Your task to perform on an android device: toggle notification dots Image 0: 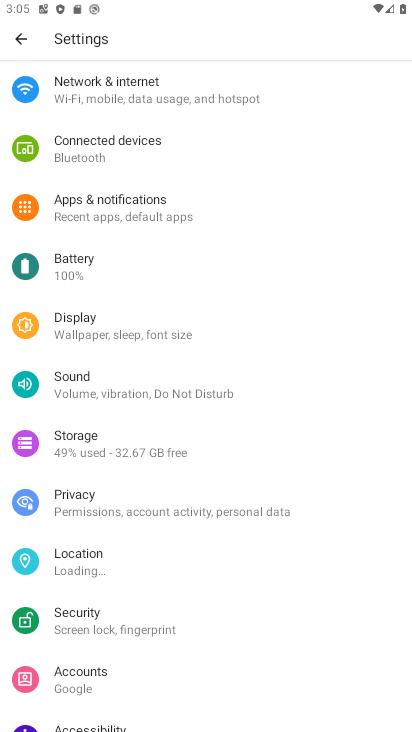
Step 0: click (133, 201)
Your task to perform on an android device: toggle notification dots Image 1: 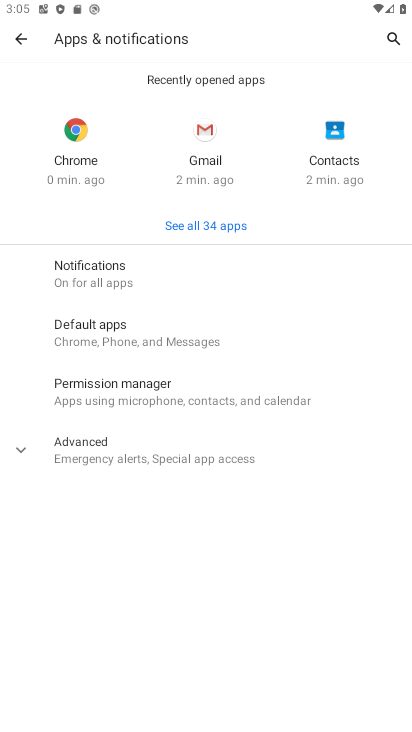
Step 1: click (107, 454)
Your task to perform on an android device: toggle notification dots Image 2: 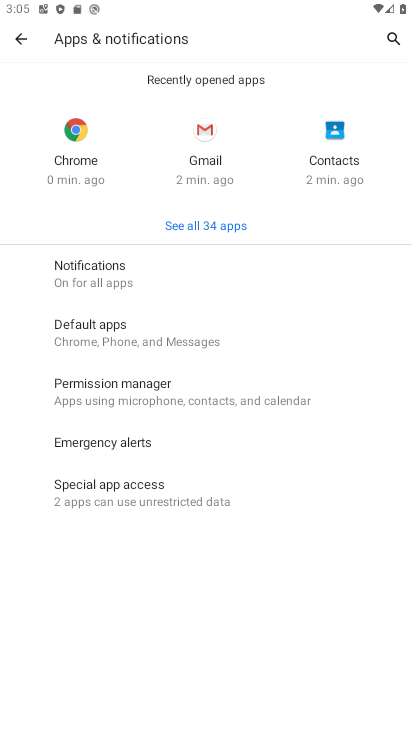
Step 2: click (91, 273)
Your task to perform on an android device: toggle notification dots Image 3: 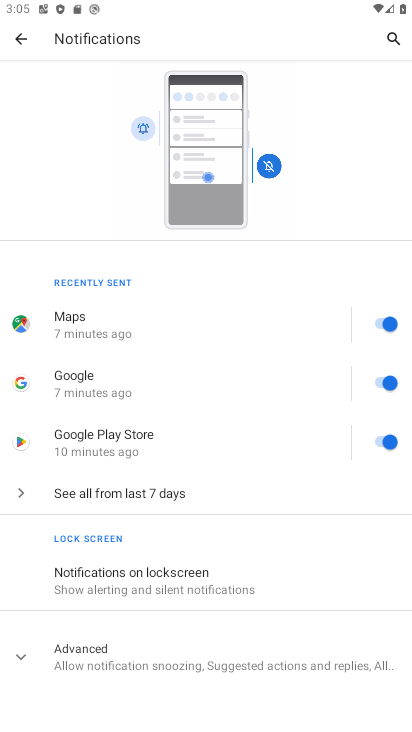
Step 3: drag from (91, 651) to (120, 311)
Your task to perform on an android device: toggle notification dots Image 4: 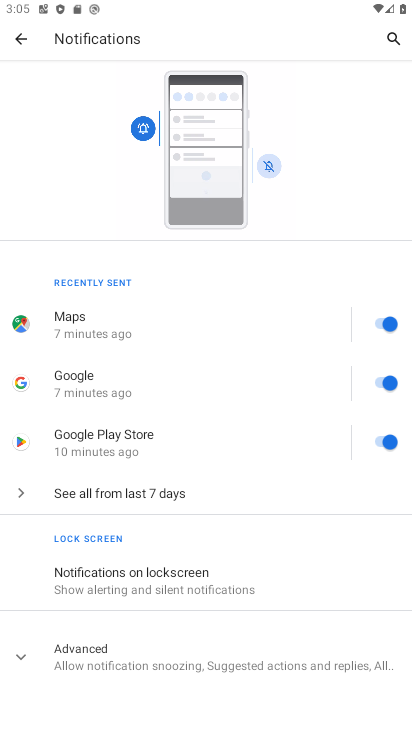
Step 4: click (94, 648)
Your task to perform on an android device: toggle notification dots Image 5: 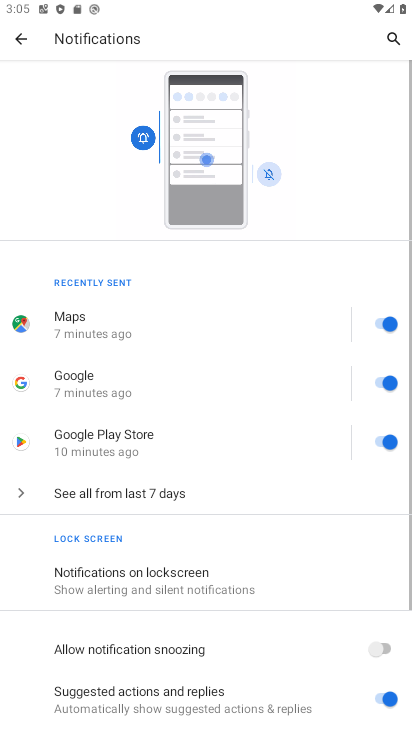
Step 5: drag from (234, 553) to (243, 252)
Your task to perform on an android device: toggle notification dots Image 6: 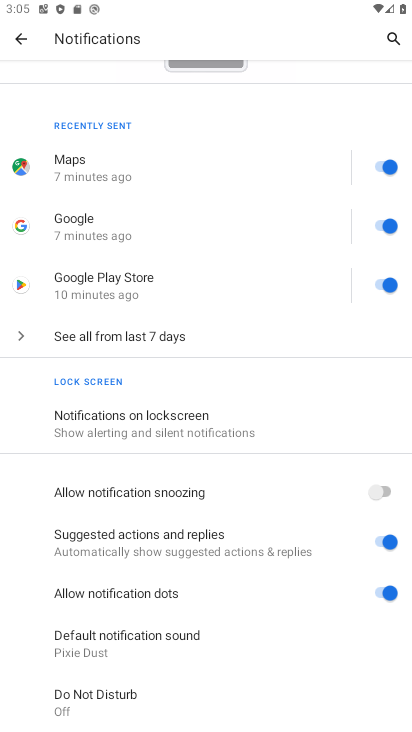
Step 6: click (388, 584)
Your task to perform on an android device: toggle notification dots Image 7: 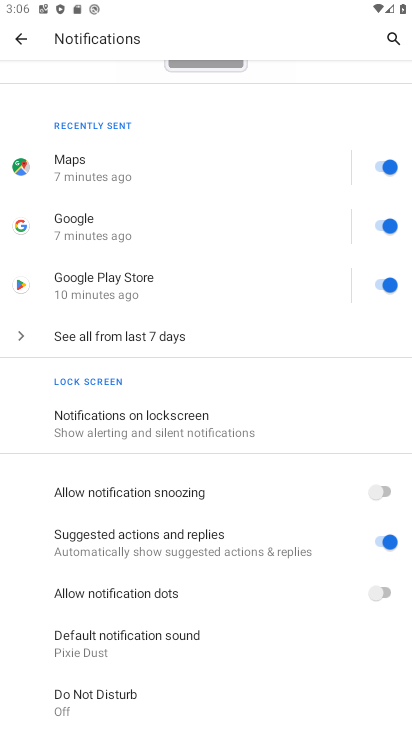
Step 7: task complete